Your task to perform on an android device: turn on data saver in the chrome app Image 0: 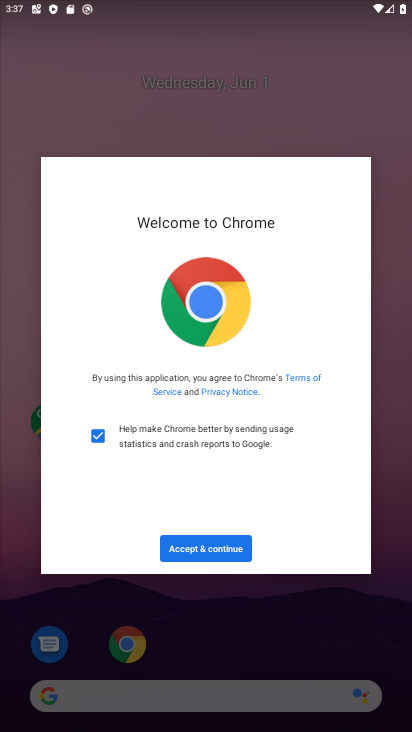
Step 0: press home button
Your task to perform on an android device: turn on data saver in the chrome app Image 1: 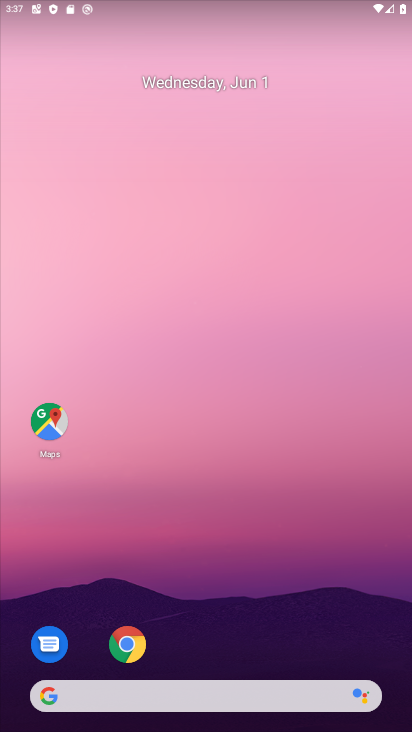
Step 1: click (123, 645)
Your task to perform on an android device: turn on data saver in the chrome app Image 2: 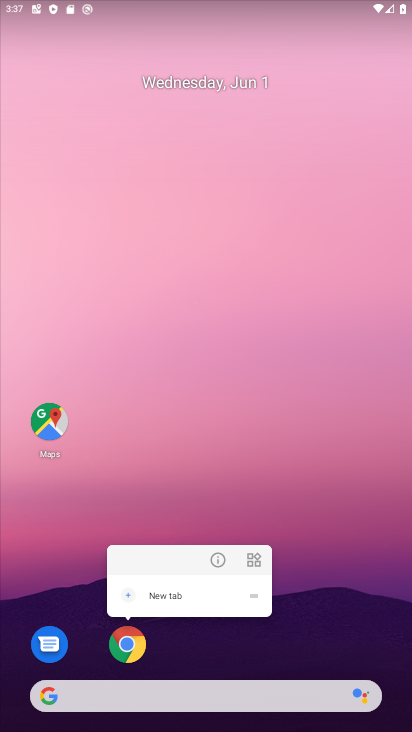
Step 2: click (129, 663)
Your task to perform on an android device: turn on data saver in the chrome app Image 3: 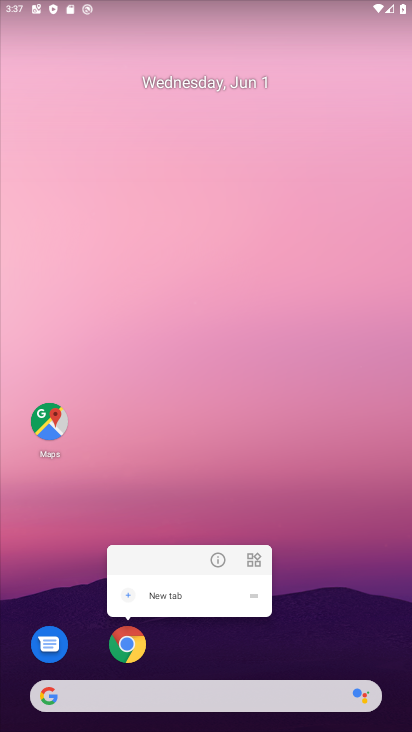
Step 3: click (128, 661)
Your task to perform on an android device: turn on data saver in the chrome app Image 4: 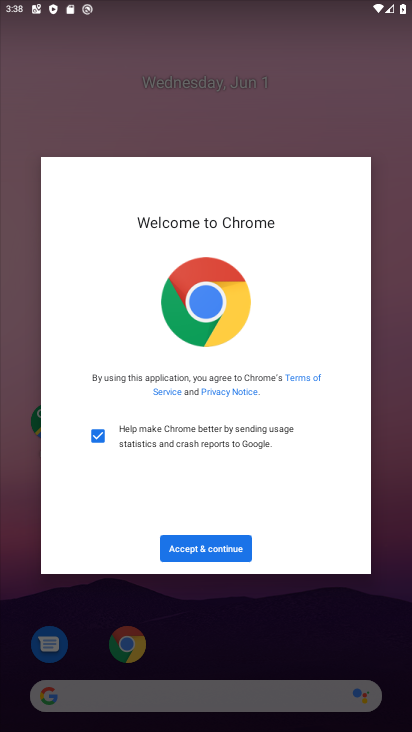
Step 4: click (236, 552)
Your task to perform on an android device: turn on data saver in the chrome app Image 5: 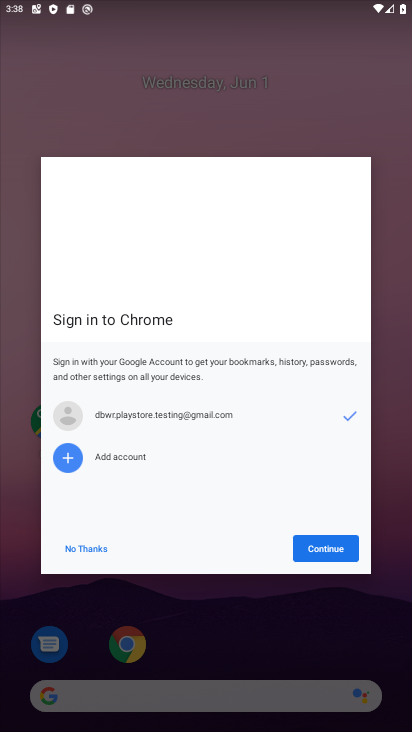
Step 5: click (298, 548)
Your task to perform on an android device: turn on data saver in the chrome app Image 6: 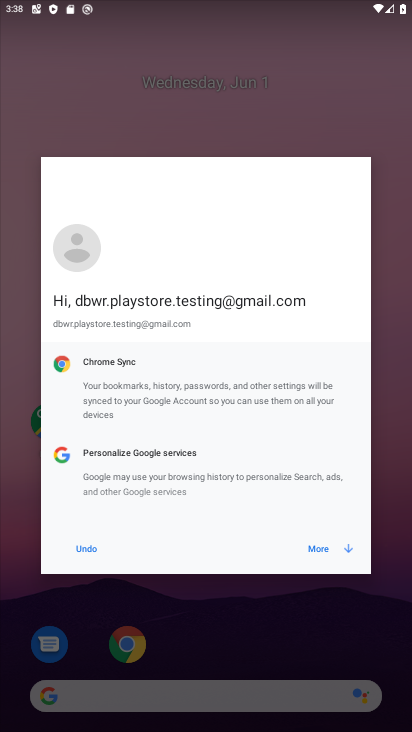
Step 6: click (349, 551)
Your task to perform on an android device: turn on data saver in the chrome app Image 7: 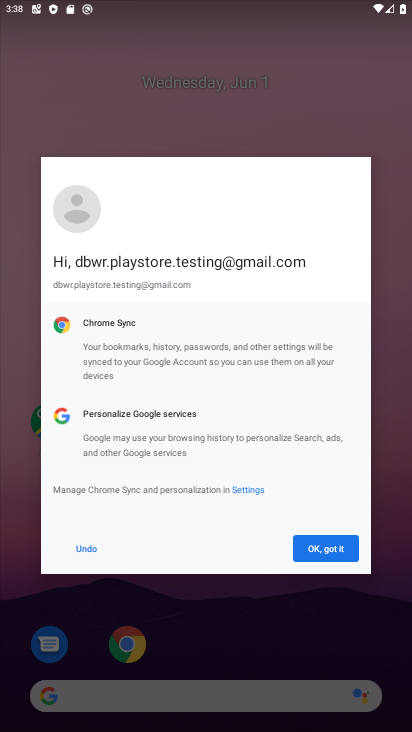
Step 7: click (337, 550)
Your task to perform on an android device: turn on data saver in the chrome app Image 8: 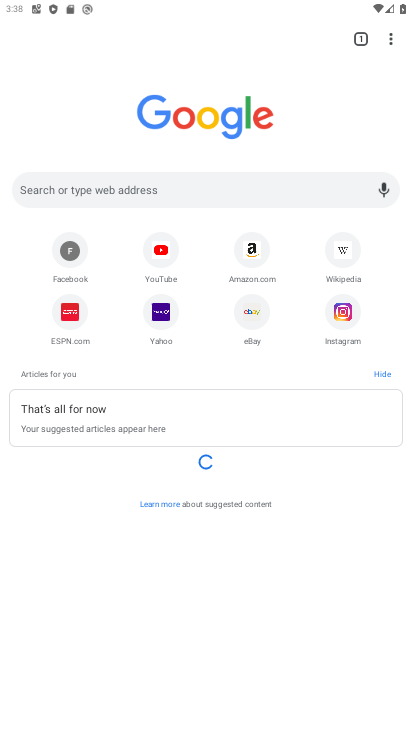
Step 8: drag from (393, 42) to (261, 330)
Your task to perform on an android device: turn on data saver in the chrome app Image 9: 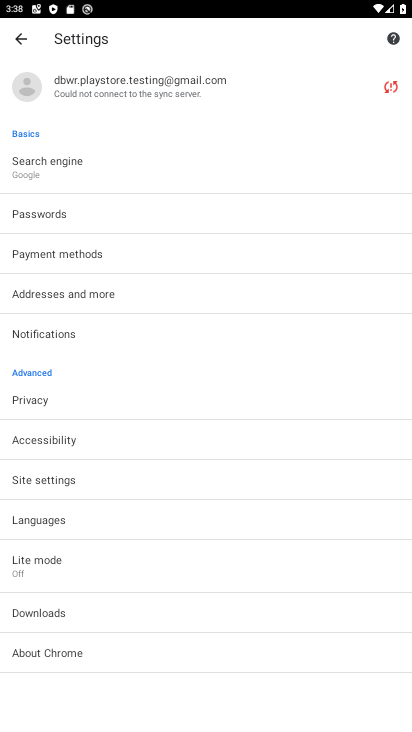
Step 9: click (43, 557)
Your task to perform on an android device: turn on data saver in the chrome app Image 10: 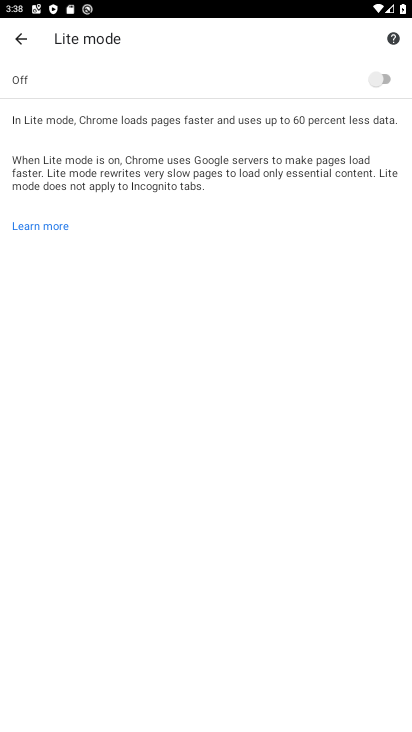
Step 10: click (384, 77)
Your task to perform on an android device: turn on data saver in the chrome app Image 11: 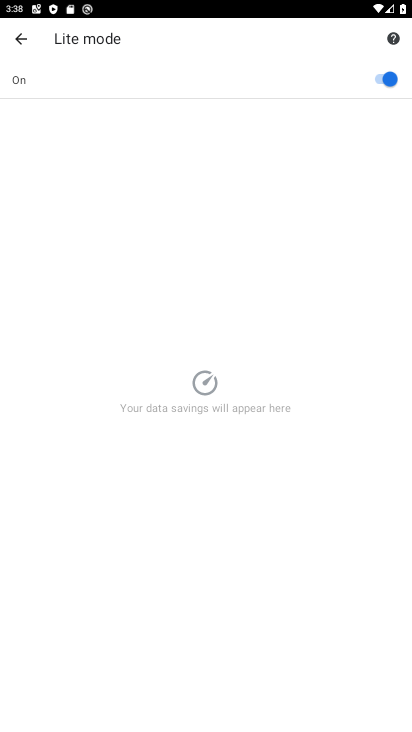
Step 11: task complete